Your task to perform on an android device: Open Android settings Image 0: 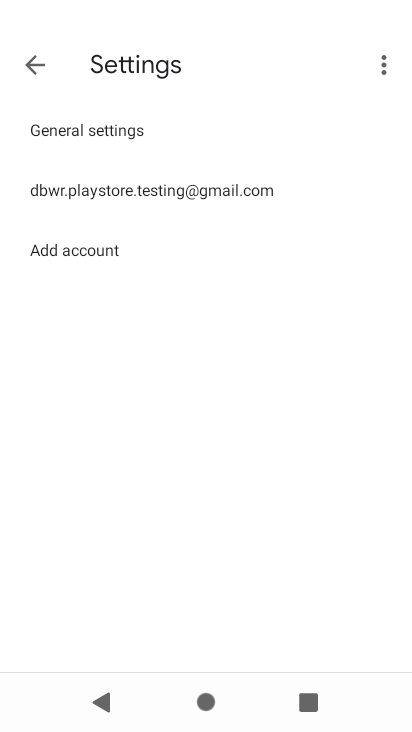
Step 0: press home button
Your task to perform on an android device: Open Android settings Image 1: 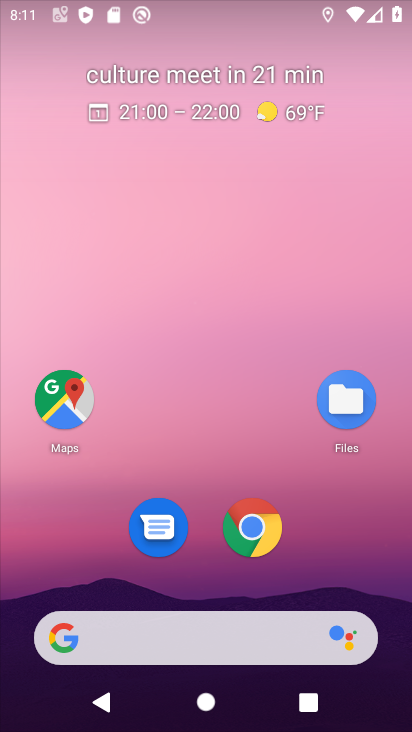
Step 1: drag from (301, 559) to (321, 74)
Your task to perform on an android device: Open Android settings Image 2: 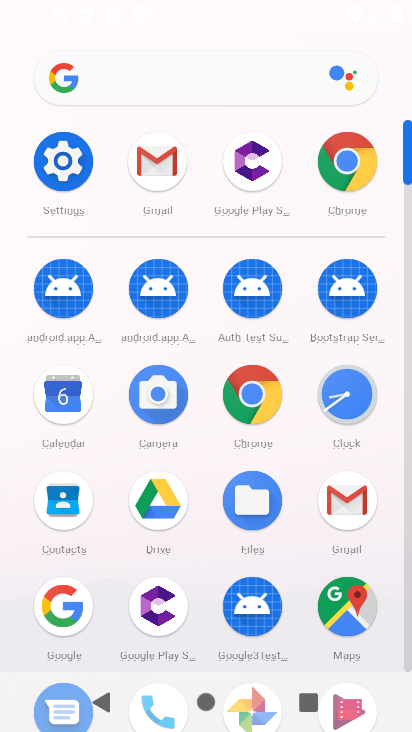
Step 2: click (64, 162)
Your task to perform on an android device: Open Android settings Image 3: 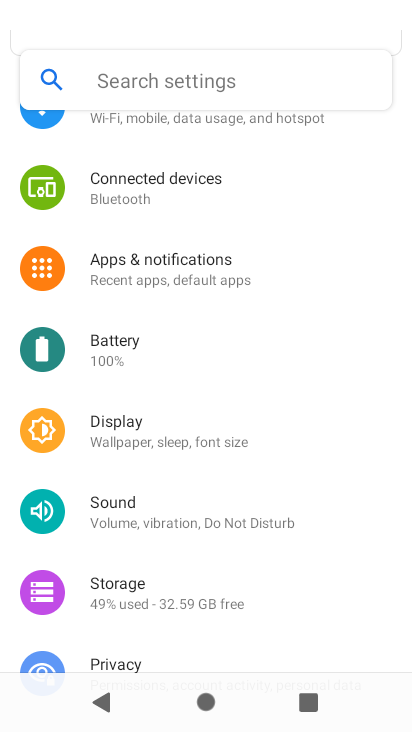
Step 3: task complete